Your task to perform on an android device: add a contact in the contacts app Image 0: 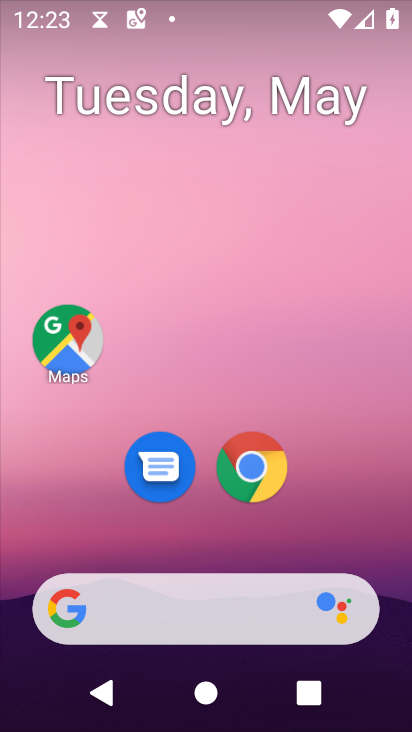
Step 0: drag from (354, 520) to (317, 128)
Your task to perform on an android device: add a contact in the contacts app Image 1: 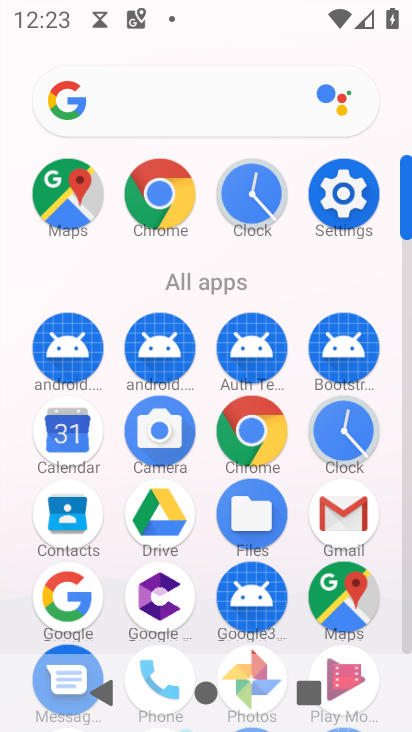
Step 1: click (70, 516)
Your task to perform on an android device: add a contact in the contacts app Image 2: 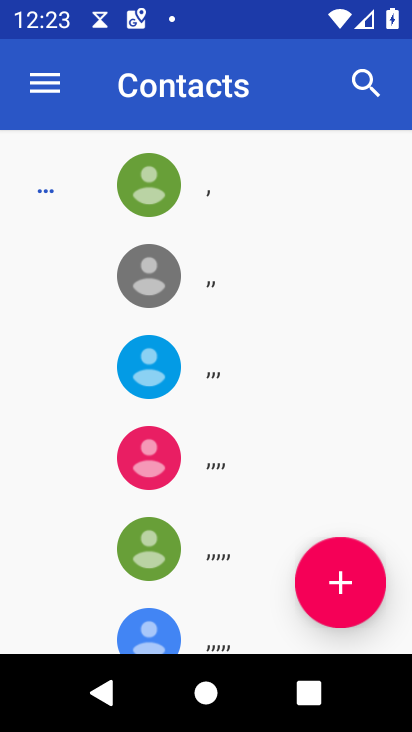
Step 2: click (342, 584)
Your task to perform on an android device: add a contact in the contacts app Image 3: 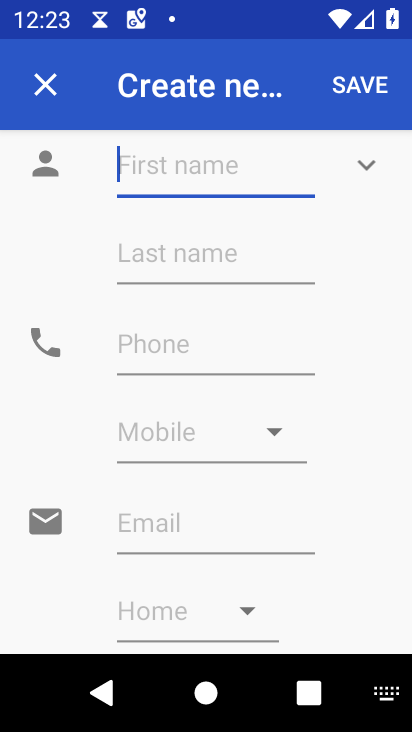
Step 3: type ""
Your task to perform on an android device: add a contact in the contacts app Image 4: 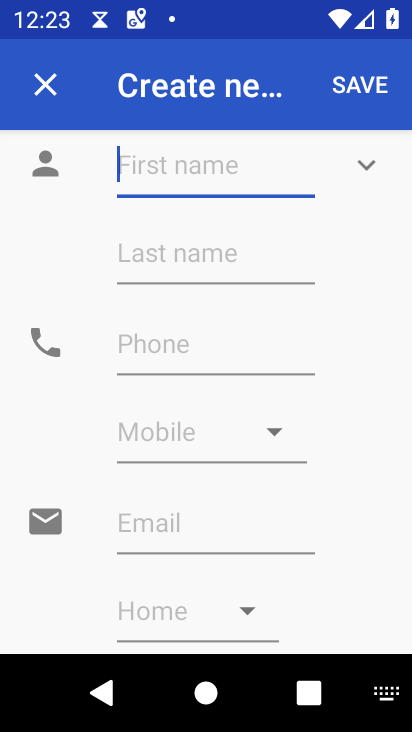
Step 4: type "hgdhc"
Your task to perform on an android device: add a contact in the contacts app Image 5: 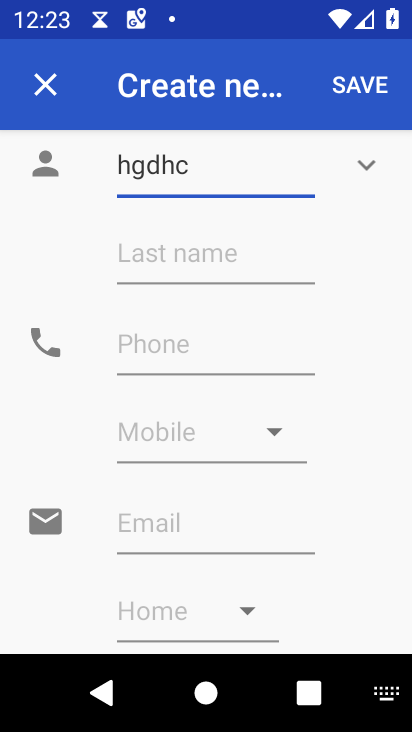
Step 5: click (169, 356)
Your task to perform on an android device: add a contact in the contacts app Image 6: 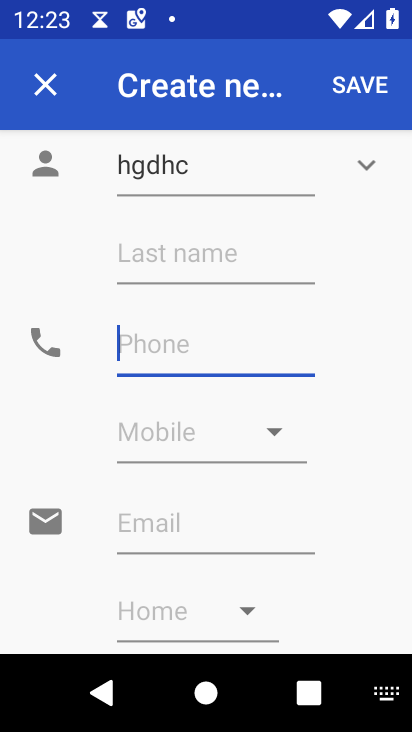
Step 6: type "65758697"
Your task to perform on an android device: add a contact in the contacts app Image 7: 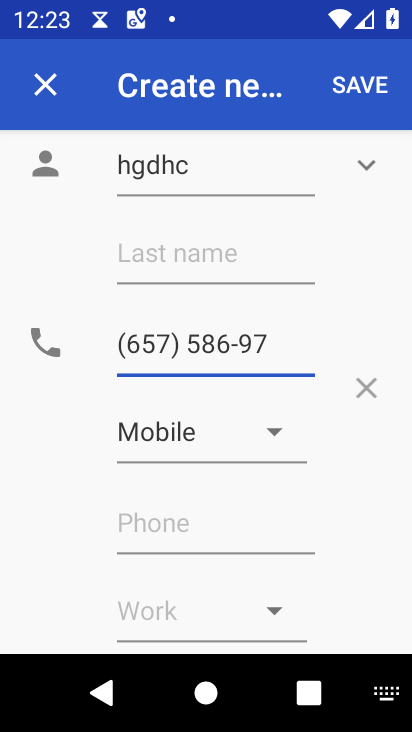
Step 7: click (352, 86)
Your task to perform on an android device: add a contact in the contacts app Image 8: 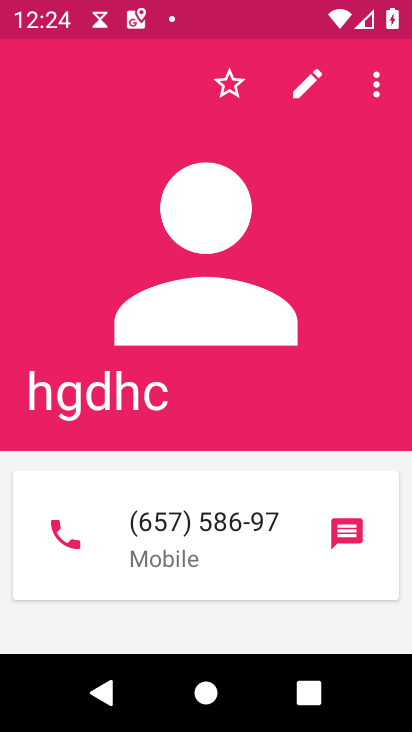
Step 8: task complete